Your task to perform on an android device: turn off translation in the chrome app Image 0: 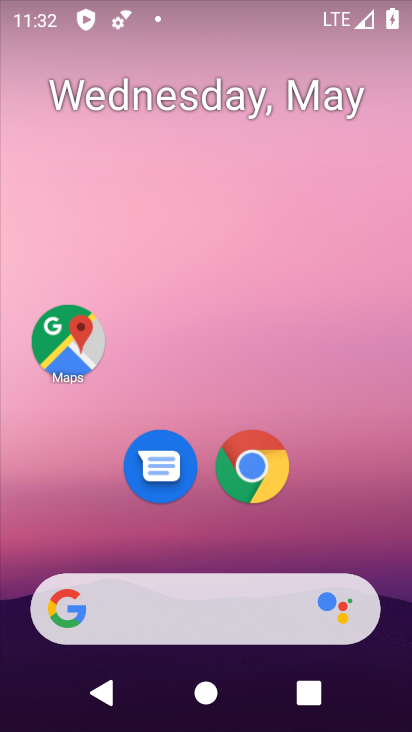
Step 0: drag from (0, 0) to (249, 474)
Your task to perform on an android device: turn off translation in the chrome app Image 1: 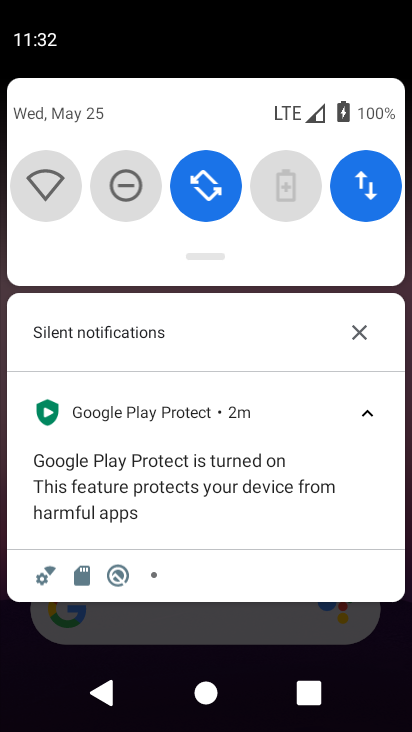
Step 1: drag from (165, 642) to (404, 556)
Your task to perform on an android device: turn off translation in the chrome app Image 2: 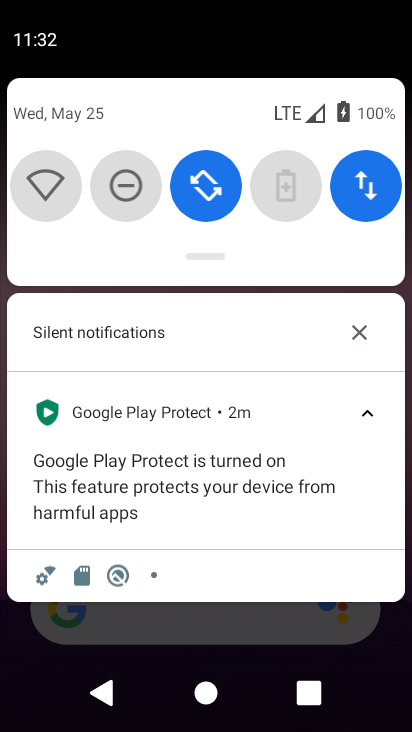
Step 2: drag from (243, 625) to (268, 292)
Your task to perform on an android device: turn off translation in the chrome app Image 3: 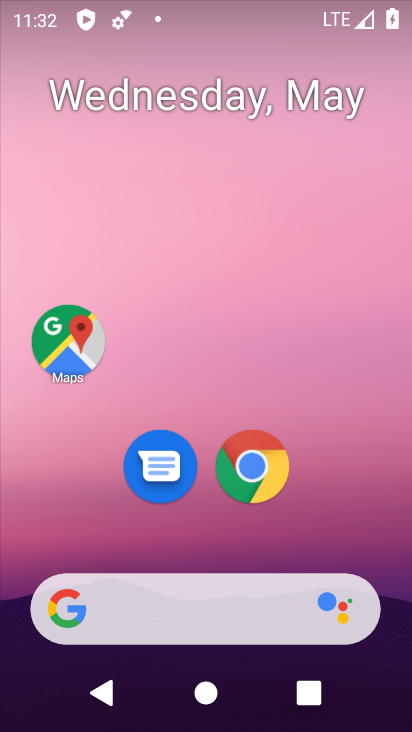
Step 3: click (243, 451)
Your task to perform on an android device: turn off translation in the chrome app Image 4: 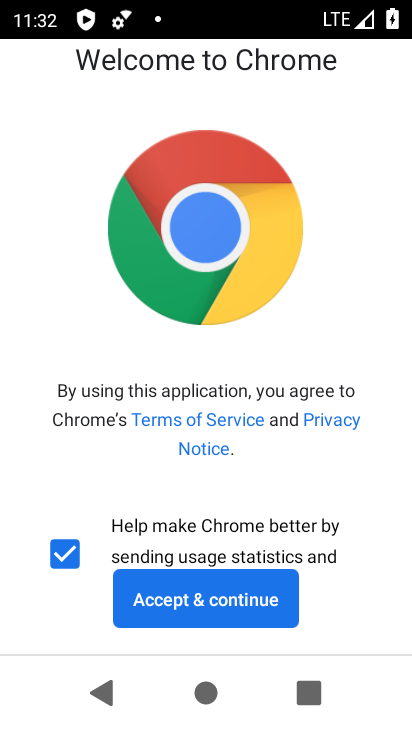
Step 4: click (221, 603)
Your task to perform on an android device: turn off translation in the chrome app Image 5: 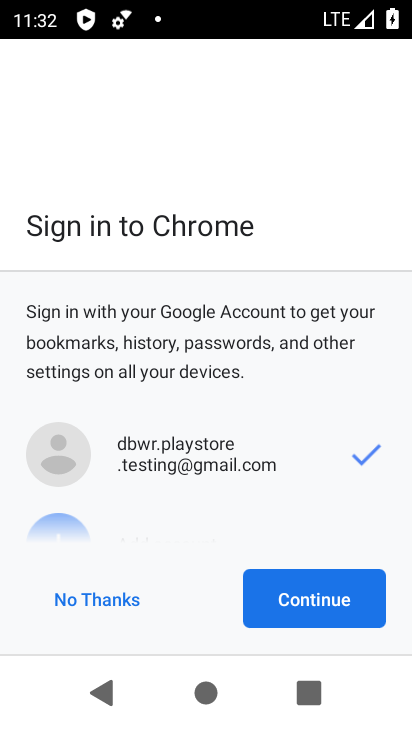
Step 5: click (279, 607)
Your task to perform on an android device: turn off translation in the chrome app Image 6: 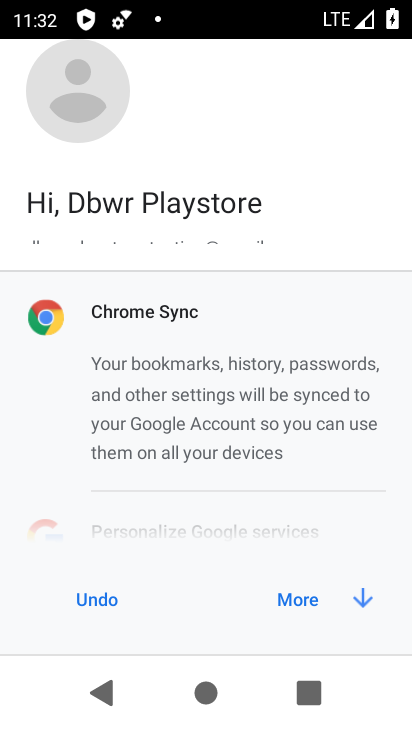
Step 6: click (279, 606)
Your task to perform on an android device: turn off translation in the chrome app Image 7: 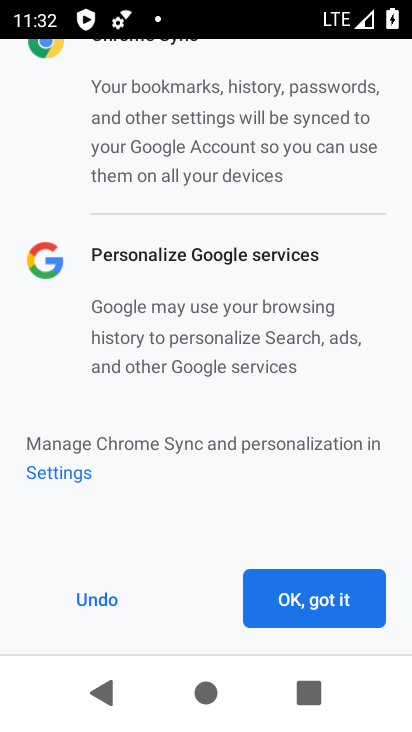
Step 7: click (290, 611)
Your task to perform on an android device: turn off translation in the chrome app Image 8: 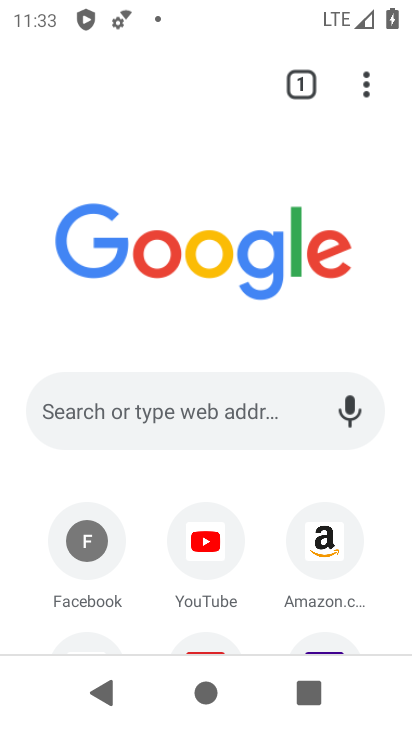
Step 8: click (365, 88)
Your task to perform on an android device: turn off translation in the chrome app Image 9: 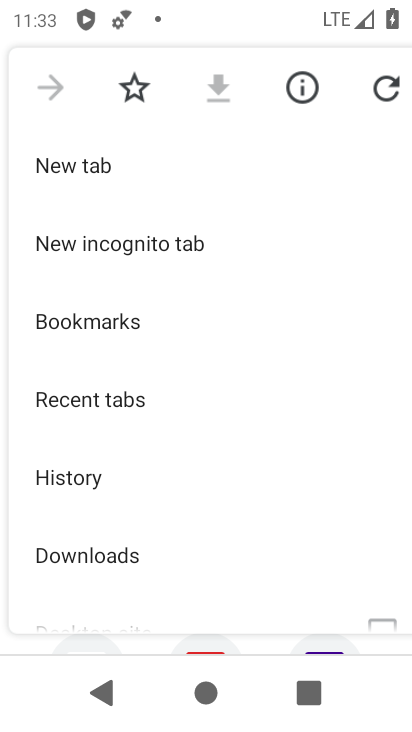
Step 9: drag from (132, 547) to (161, 329)
Your task to perform on an android device: turn off translation in the chrome app Image 10: 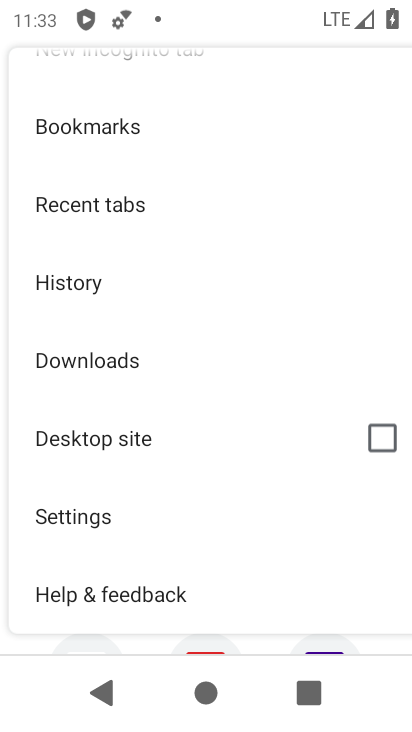
Step 10: click (100, 532)
Your task to perform on an android device: turn off translation in the chrome app Image 11: 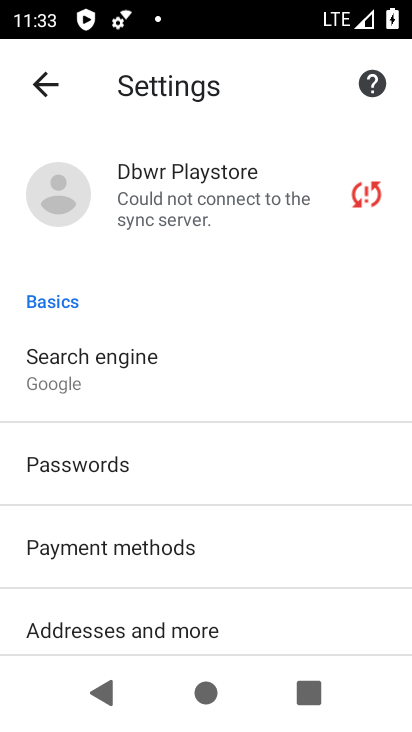
Step 11: drag from (171, 553) to (187, 330)
Your task to perform on an android device: turn off translation in the chrome app Image 12: 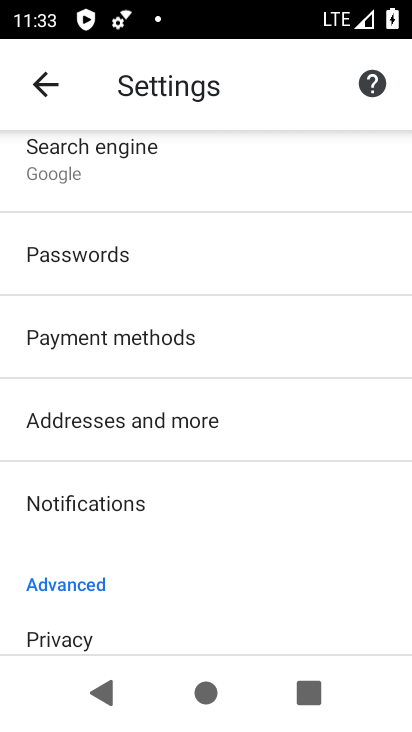
Step 12: drag from (148, 576) to (178, 372)
Your task to perform on an android device: turn off translation in the chrome app Image 13: 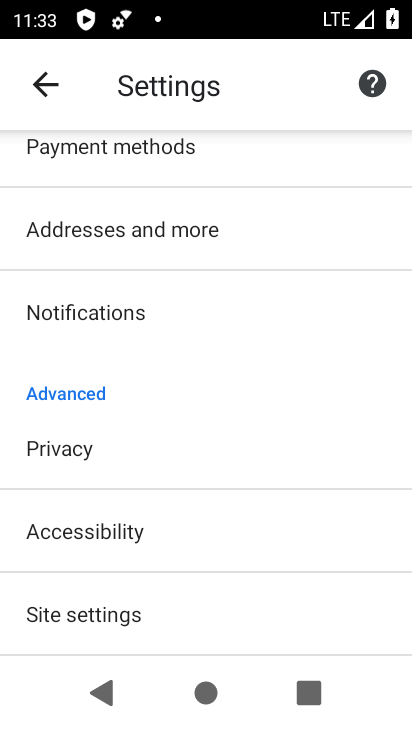
Step 13: drag from (118, 574) to (158, 270)
Your task to perform on an android device: turn off translation in the chrome app Image 14: 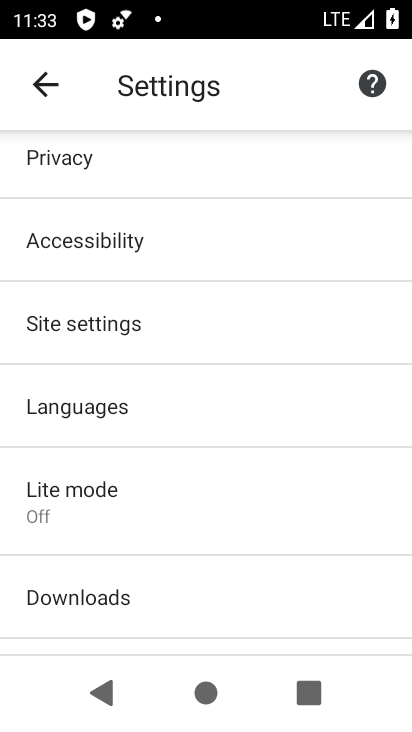
Step 14: click (108, 414)
Your task to perform on an android device: turn off translation in the chrome app Image 15: 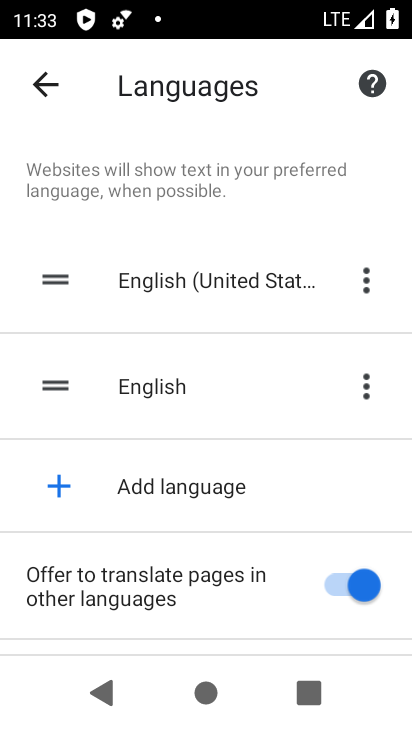
Step 15: click (300, 573)
Your task to perform on an android device: turn off translation in the chrome app Image 16: 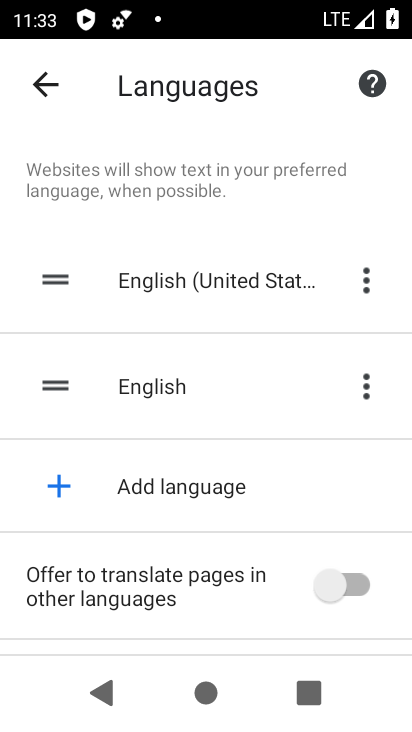
Step 16: task complete